Your task to perform on an android device: visit the assistant section in the google photos Image 0: 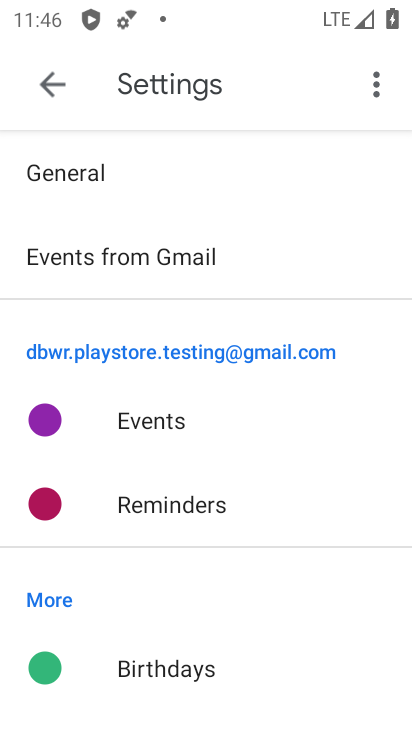
Step 0: press home button
Your task to perform on an android device: visit the assistant section in the google photos Image 1: 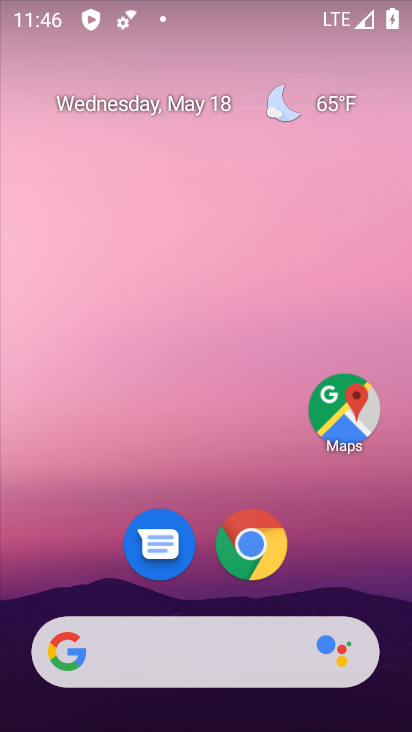
Step 1: drag from (373, 521) to (354, 189)
Your task to perform on an android device: visit the assistant section in the google photos Image 2: 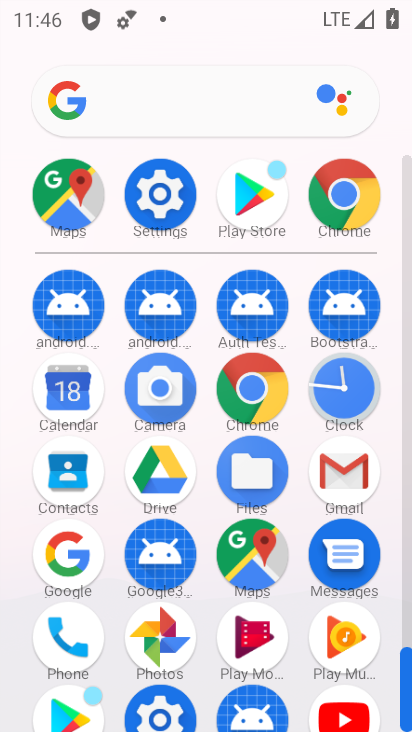
Step 2: drag from (288, 668) to (284, 548)
Your task to perform on an android device: visit the assistant section in the google photos Image 3: 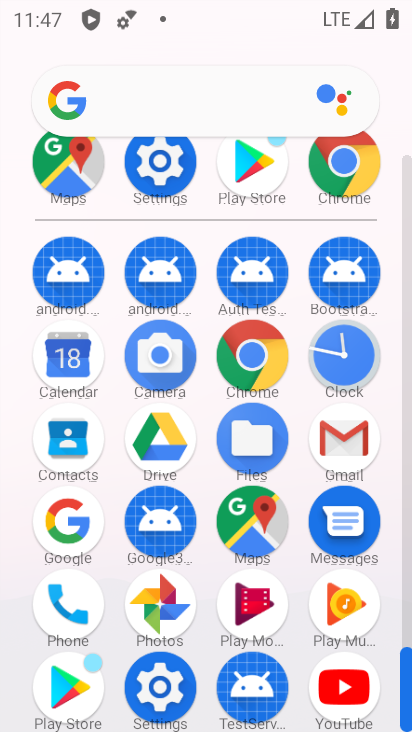
Step 3: click (177, 620)
Your task to perform on an android device: visit the assistant section in the google photos Image 4: 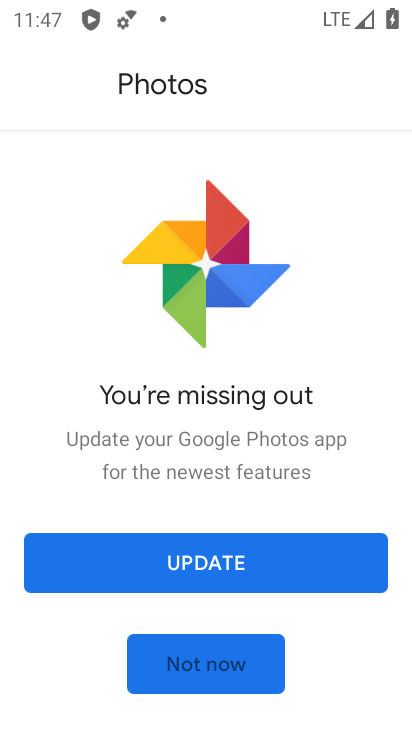
Step 4: click (254, 557)
Your task to perform on an android device: visit the assistant section in the google photos Image 5: 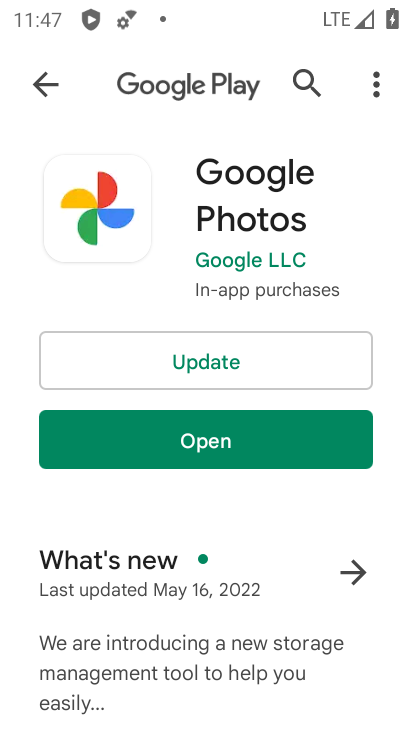
Step 5: click (310, 343)
Your task to perform on an android device: visit the assistant section in the google photos Image 6: 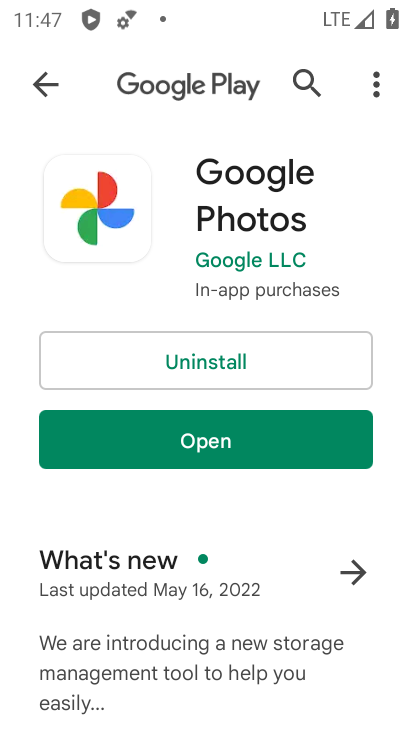
Step 6: click (296, 463)
Your task to perform on an android device: visit the assistant section in the google photos Image 7: 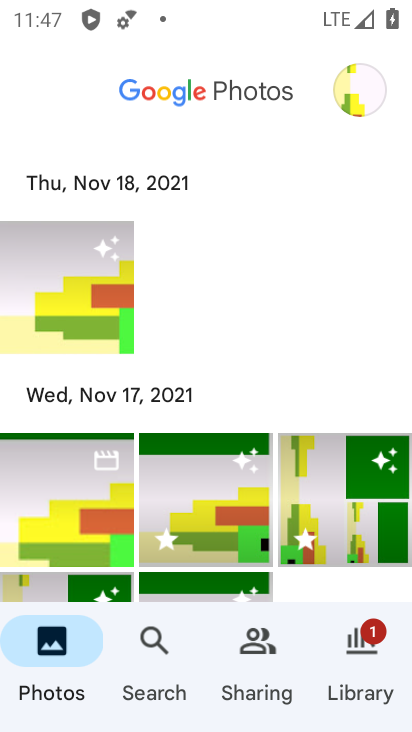
Step 7: task complete